Your task to perform on an android device: Go to Google maps Image 0: 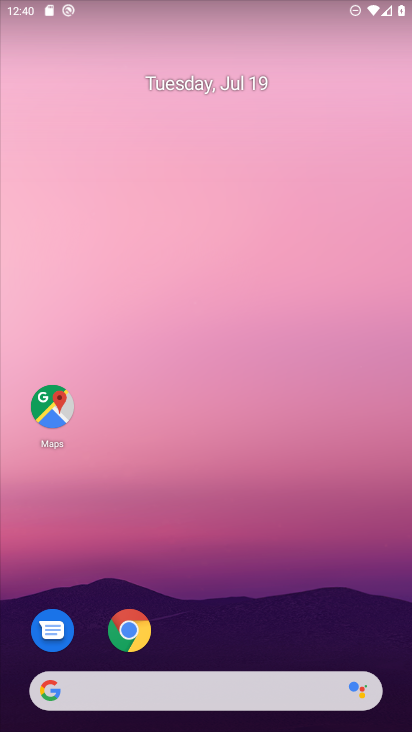
Step 0: press home button
Your task to perform on an android device: Go to Google maps Image 1: 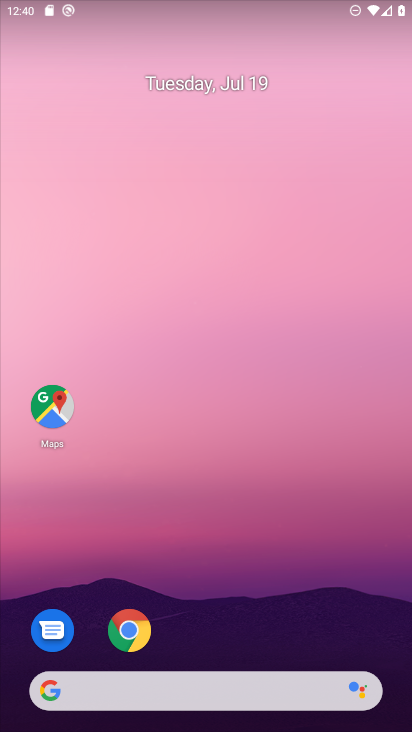
Step 1: drag from (179, 617) to (290, 82)
Your task to perform on an android device: Go to Google maps Image 2: 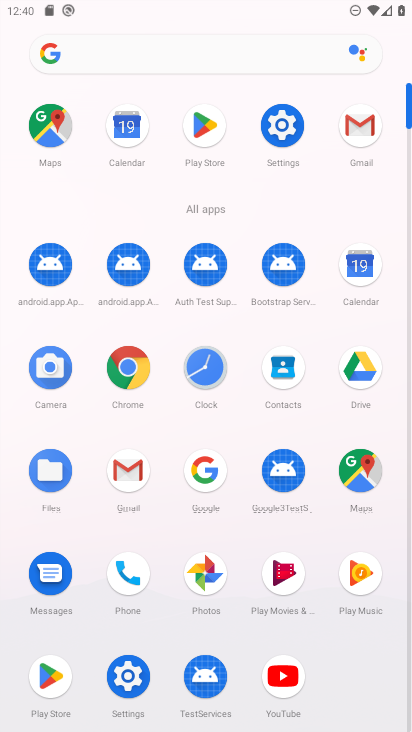
Step 2: click (47, 130)
Your task to perform on an android device: Go to Google maps Image 3: 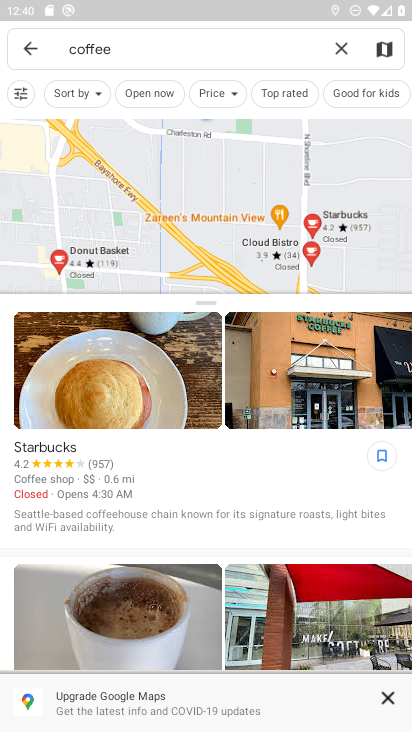
Step 3: click (28, 48)
Your task to perform on an android device: Go to Google maps Image 4: 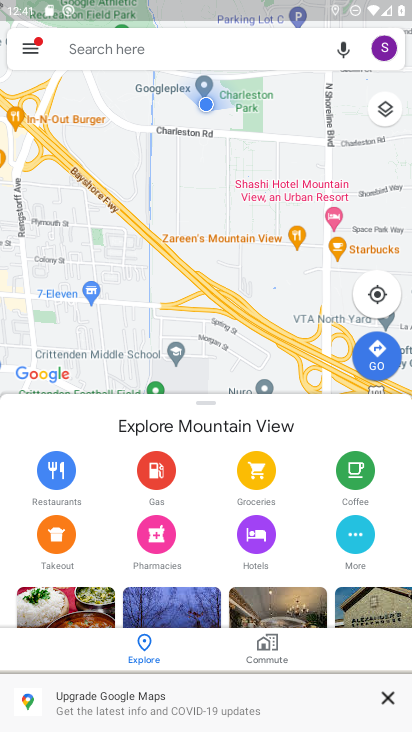
Step 4: task complete